Your task to perform on an android device: Open ESPN.com Image 0: 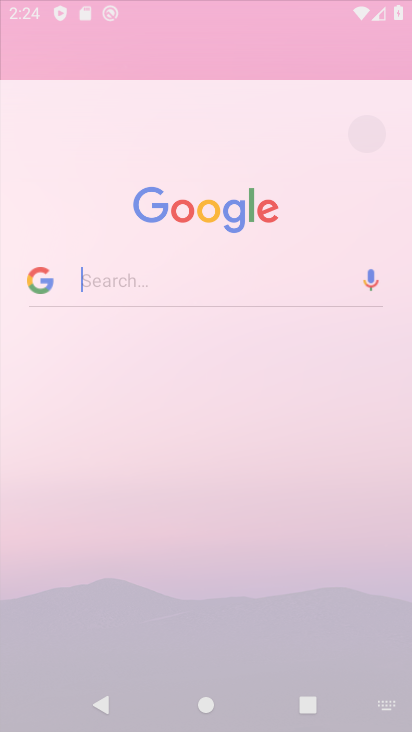
Step 0: press home button
Your task to perform on an android device: Open ESPN.com Image 1: 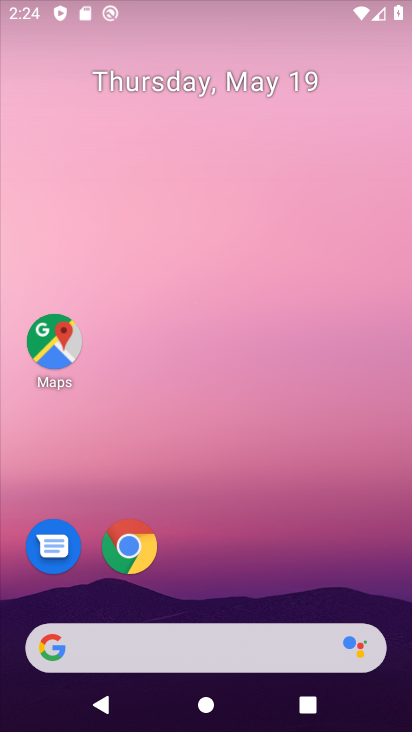
Step 1: press home button
Your task to perform on an android device: Open ESPN.com Image 2: 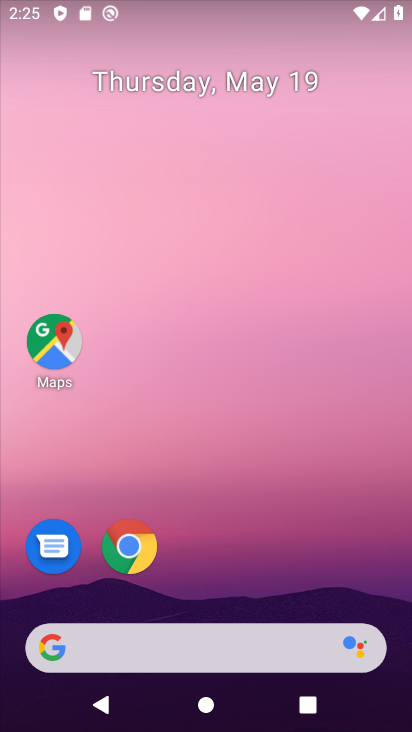
Step 2: click (131, 551)
Your task to perform on an android device: Open ESPN.com Image 3: 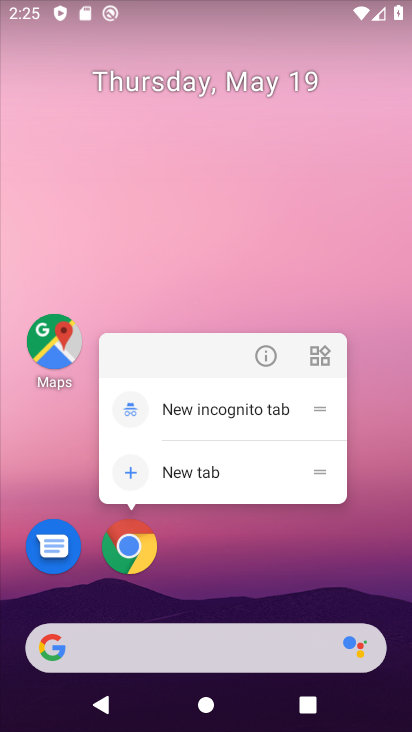
Step 3: click (134, 554)
Your task to perform on an android device: Open ESPN.com Image 4: 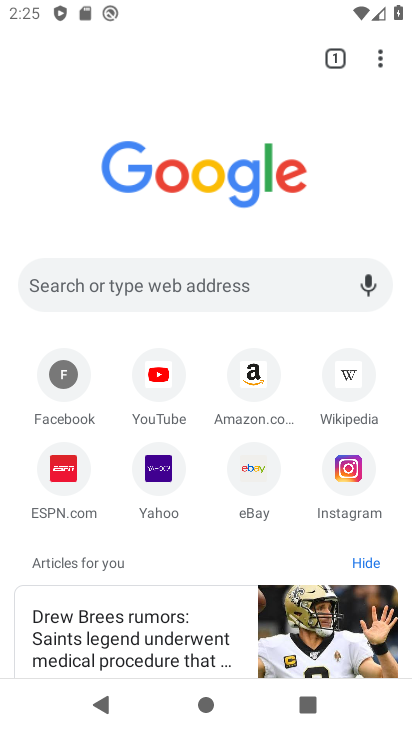
Step 4: click (69, 475)
Your task to perform on an android device: Open ESPN.com Image 5: 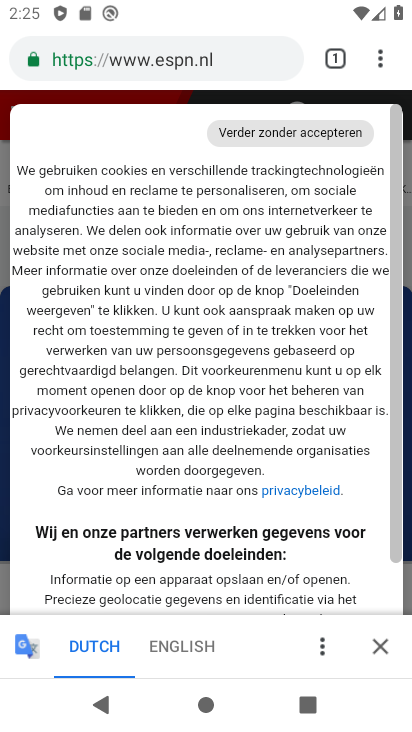
Step 5: drag from (179, 578) to (334, 216)
Your task to perform on an android device: Open ESPN.com Image 6: 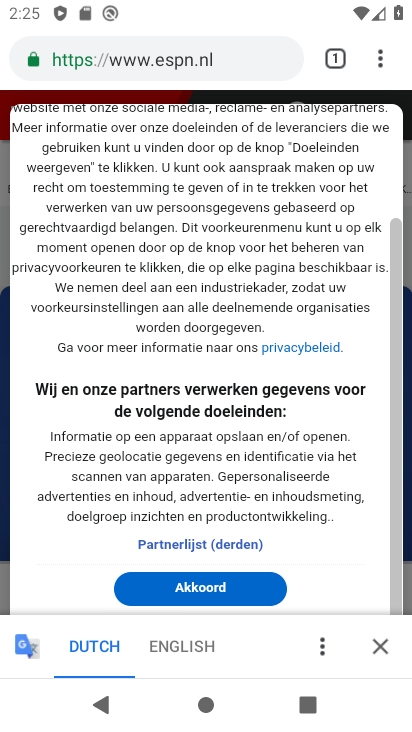
Step 6: click (181, 646)
Your task to perform on an android device: Open ESPN.com Image 7: 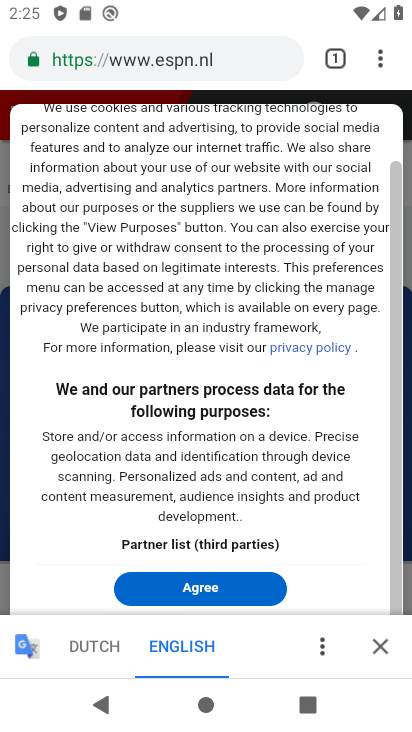
Step 7: click (235, 594)
Your task to perform on an android device: Open ESPN.com Image 8: 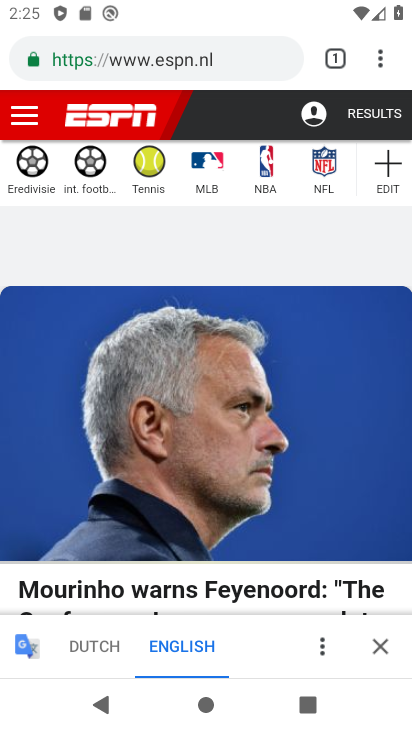
Step 8: task complete